Your task to perform on an android device: open a bookmark in the chrome app Image 0: 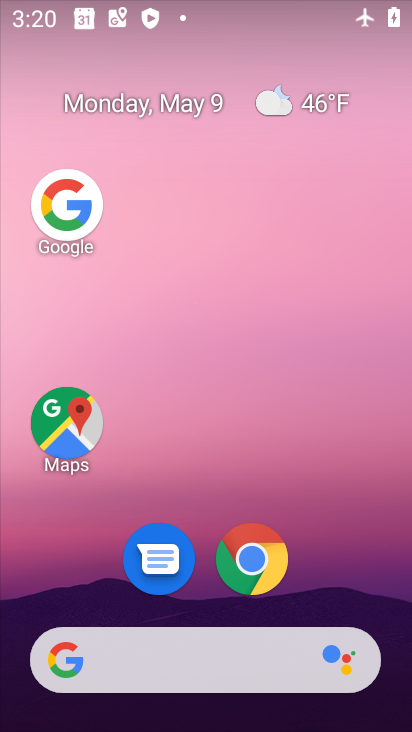
Step 0: click (261, 584)
Your task to perform on an android device: open a bookmark in the chrome app Image 1: 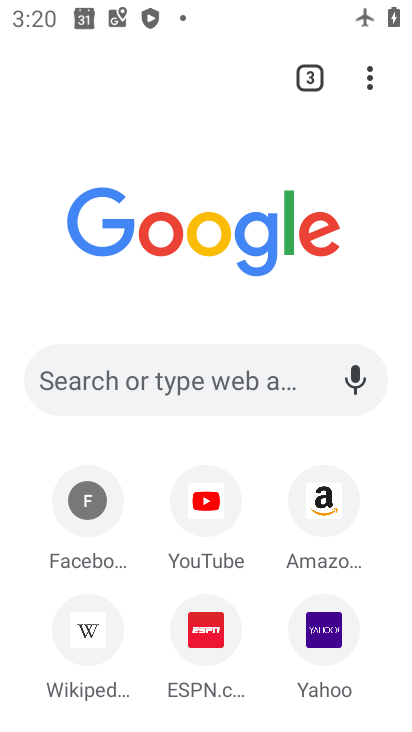
Step 1: click (372, 79)
Your task to perform on an android device: open a bookmark in the chrome app Image 2: 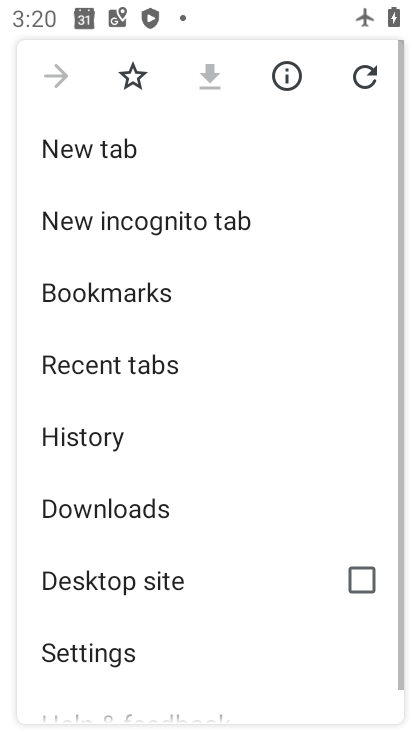
Step 2: click (203, 316)
Your task to perform on an android device: open a bookmark in the chrome app Image 3: 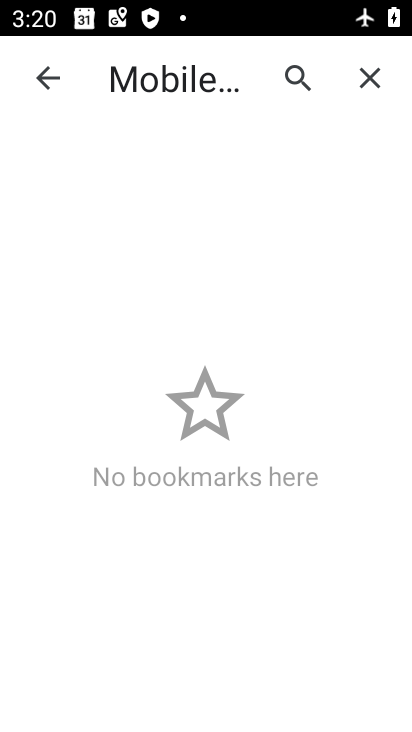
Step 3: task complete